Your task to perform on an android device: Add "macbook air" to the cart on ebay, then select checkout. Image 0: 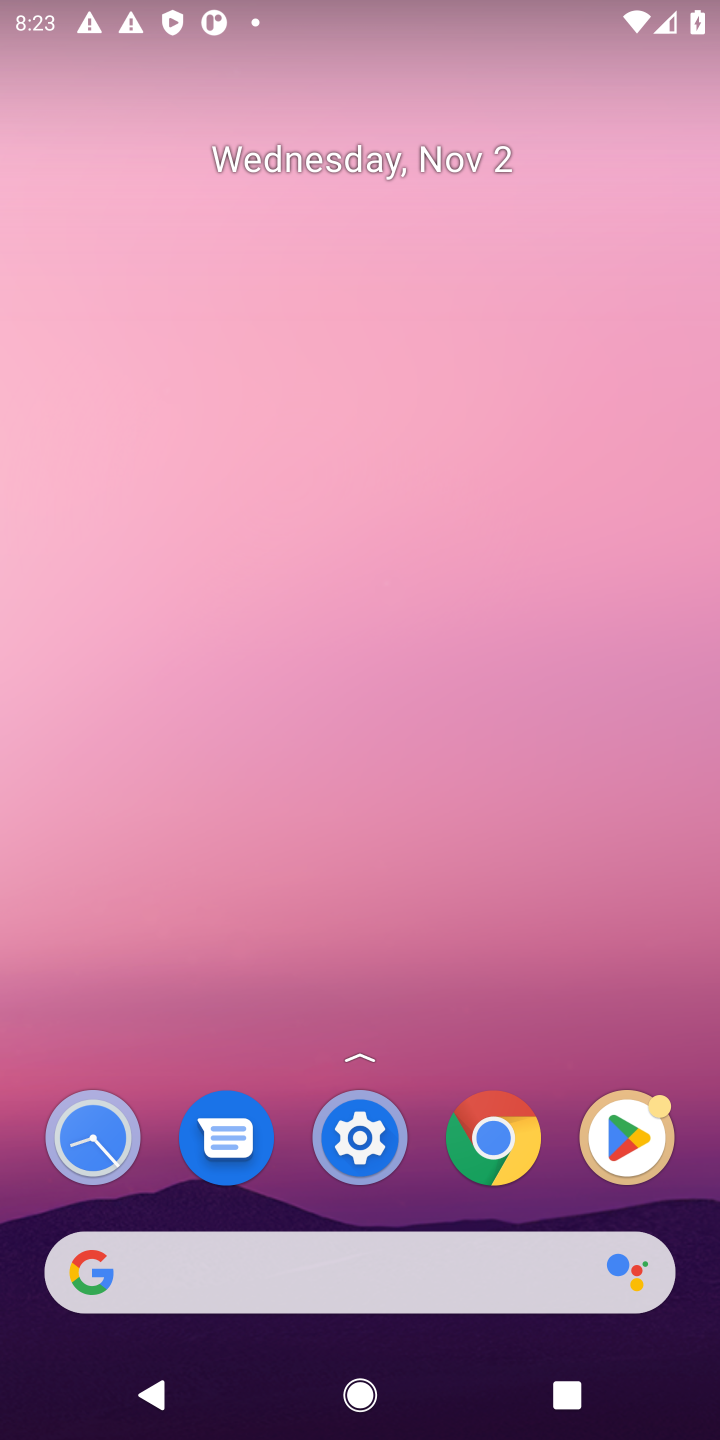
Step 0: click (227, 1266)
Your task to perform on an android device: Add "macbook air" to the cart on ebay, then select checkout. Image 1: 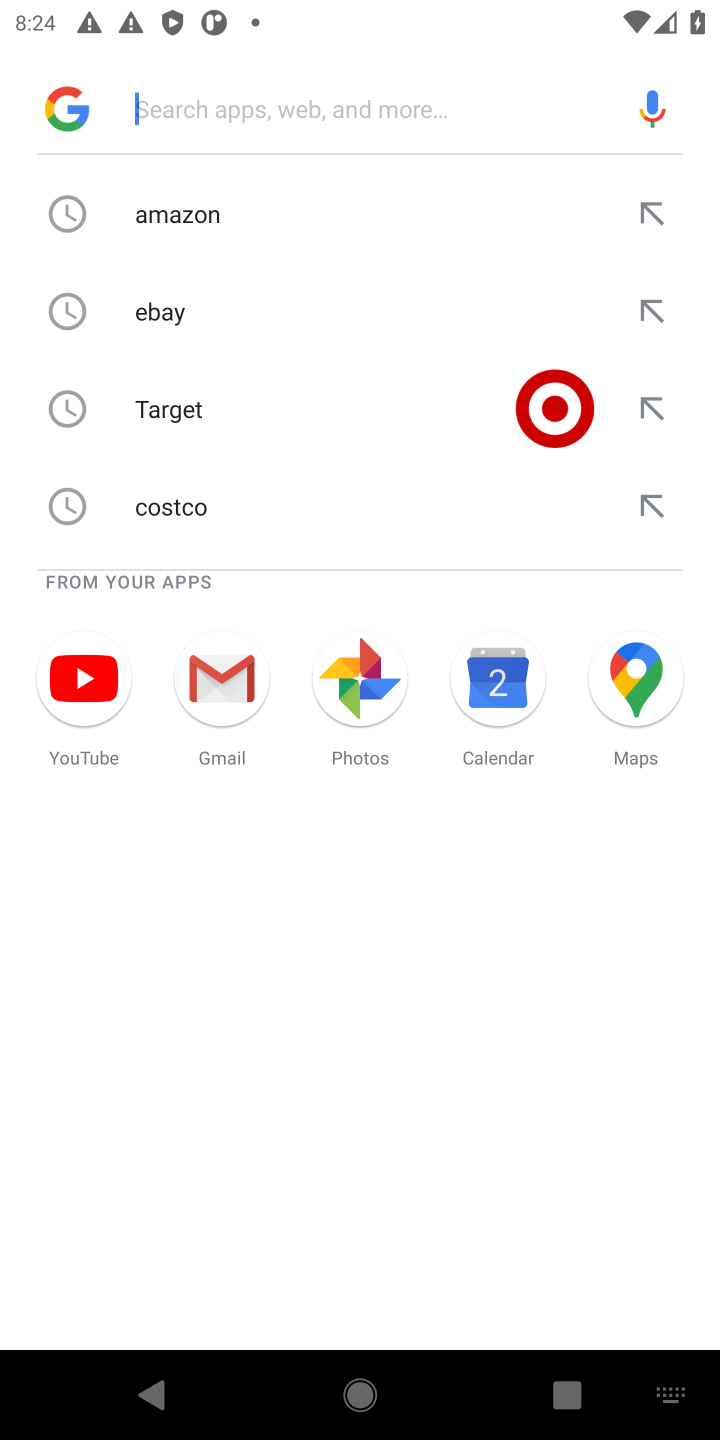
Step 1: click (141, 312)
Your task to perform on an android device: Add "macbook air" to the cart on ebay, then select checkout. Image 2: 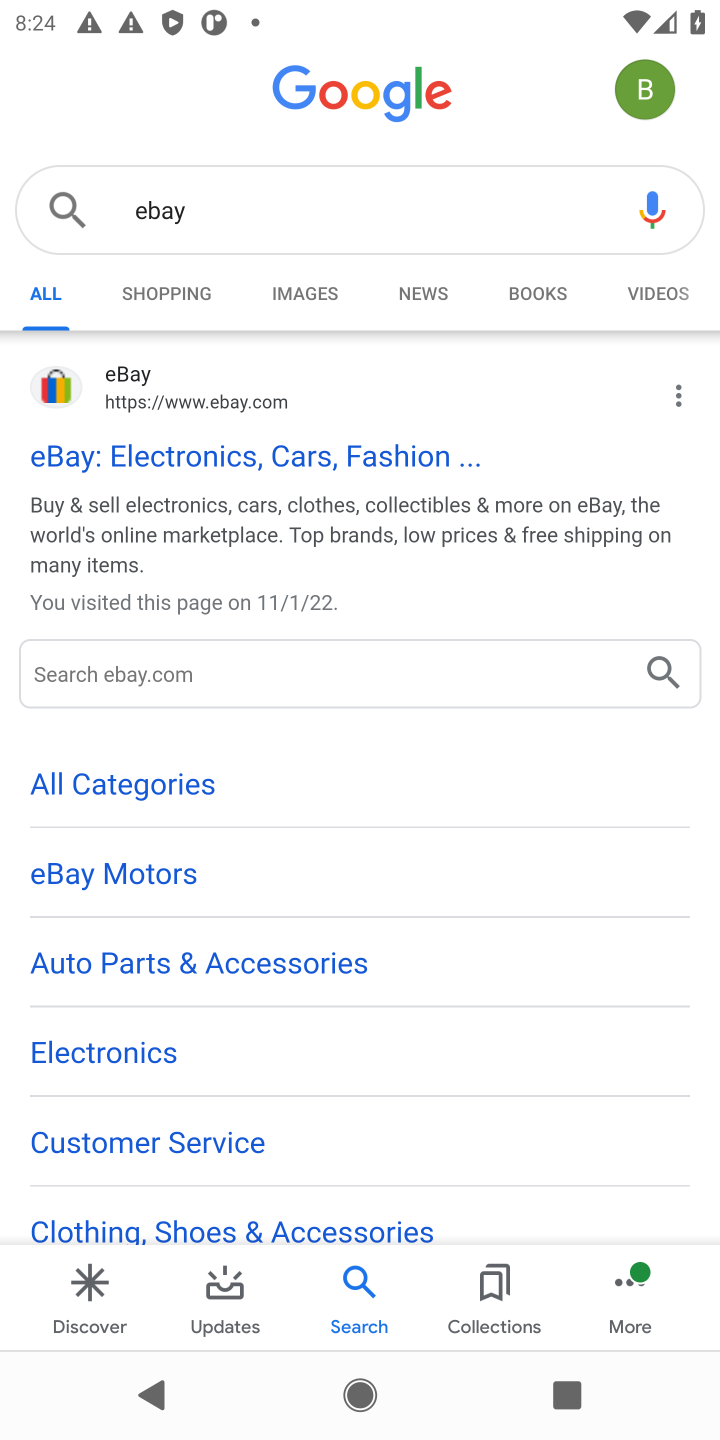
Step 2: click (125, 444)
Your task to perform on an android device: Add "macbook air" to the cart on ebay, then select checkout. Image 3: 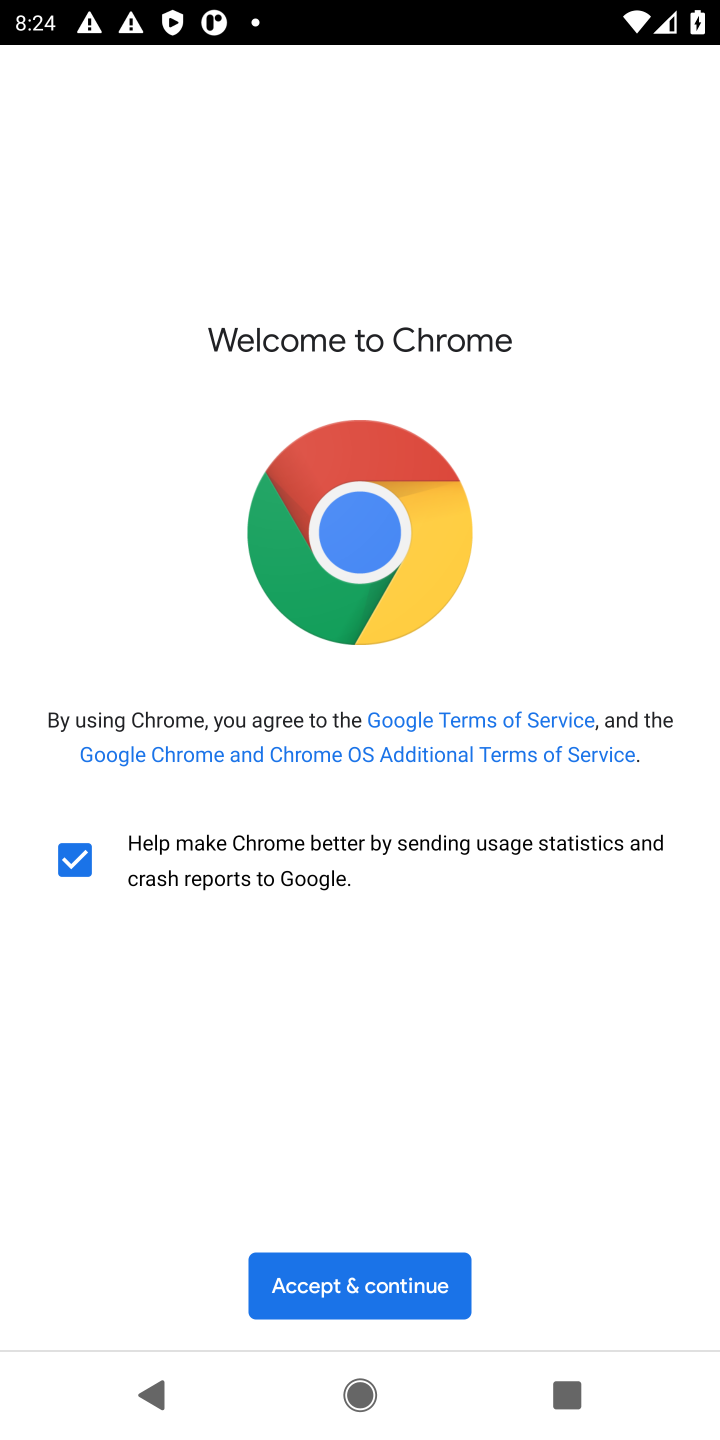
Step 3: click (334, 1279)
Your task to perform on an android device: Add "macbook air" to the cart on ebay, then select checkout. Image 4: 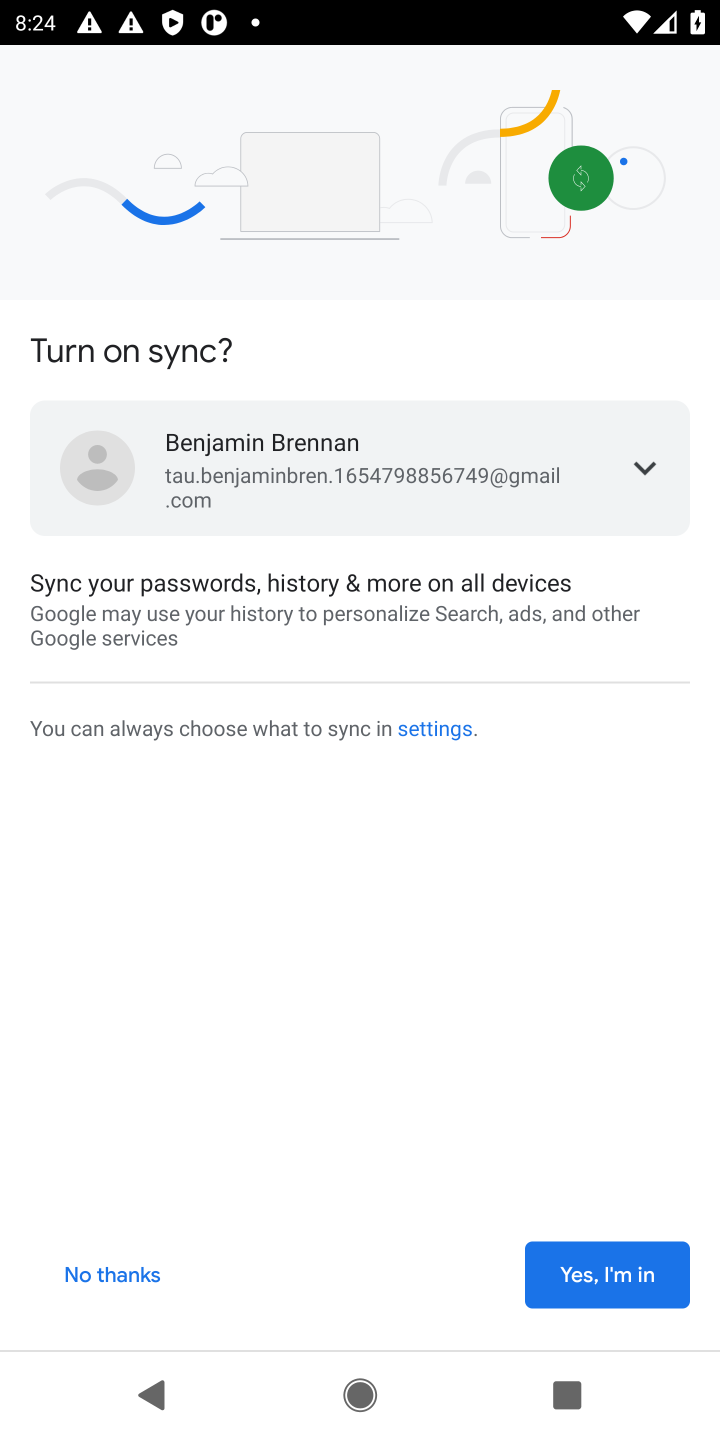
Step 4: click (552, 1274)
Your task to perform on an android device: Add "macbook air" to the cart on ebay, then select checkout. Image 5: 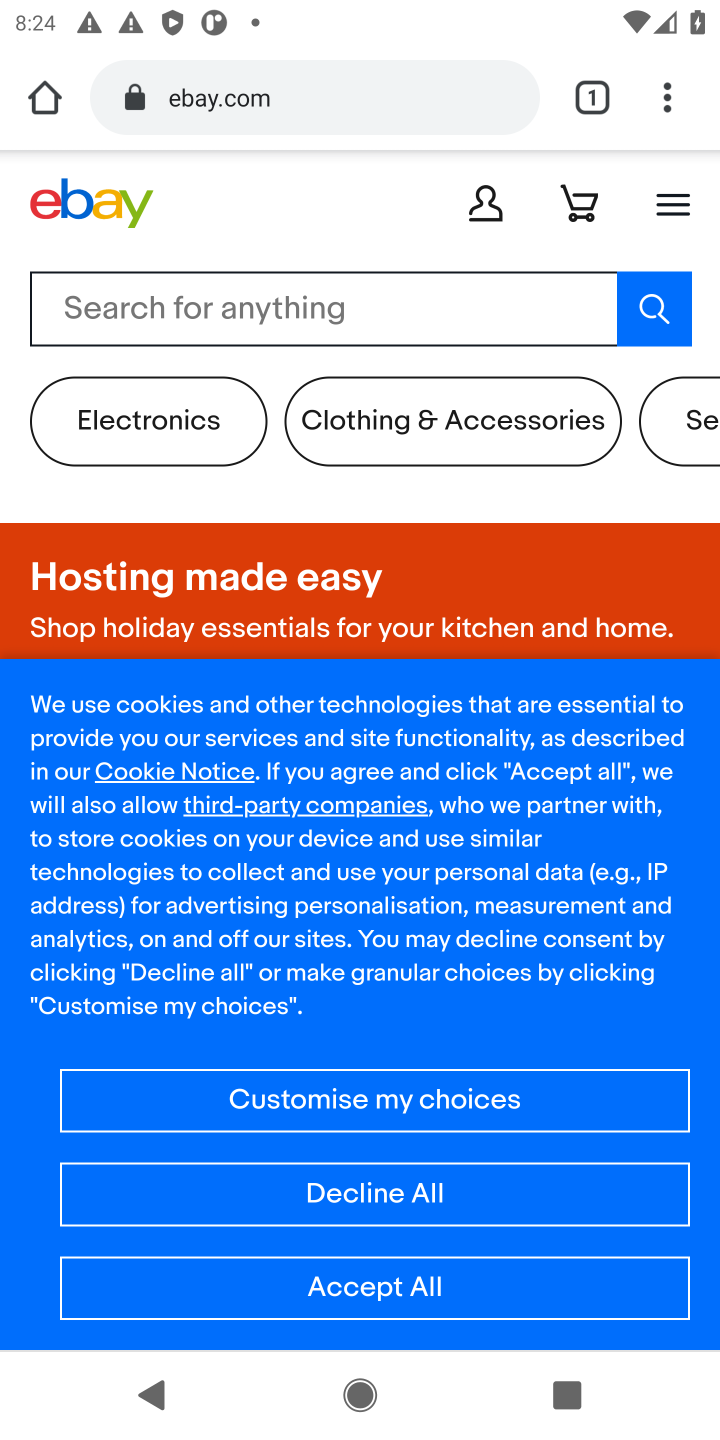
Step 5: click (406, 1302)
Your task to perform on an android device: Add "macbook air" to the cart on ebay, then select checkout. Image 6: 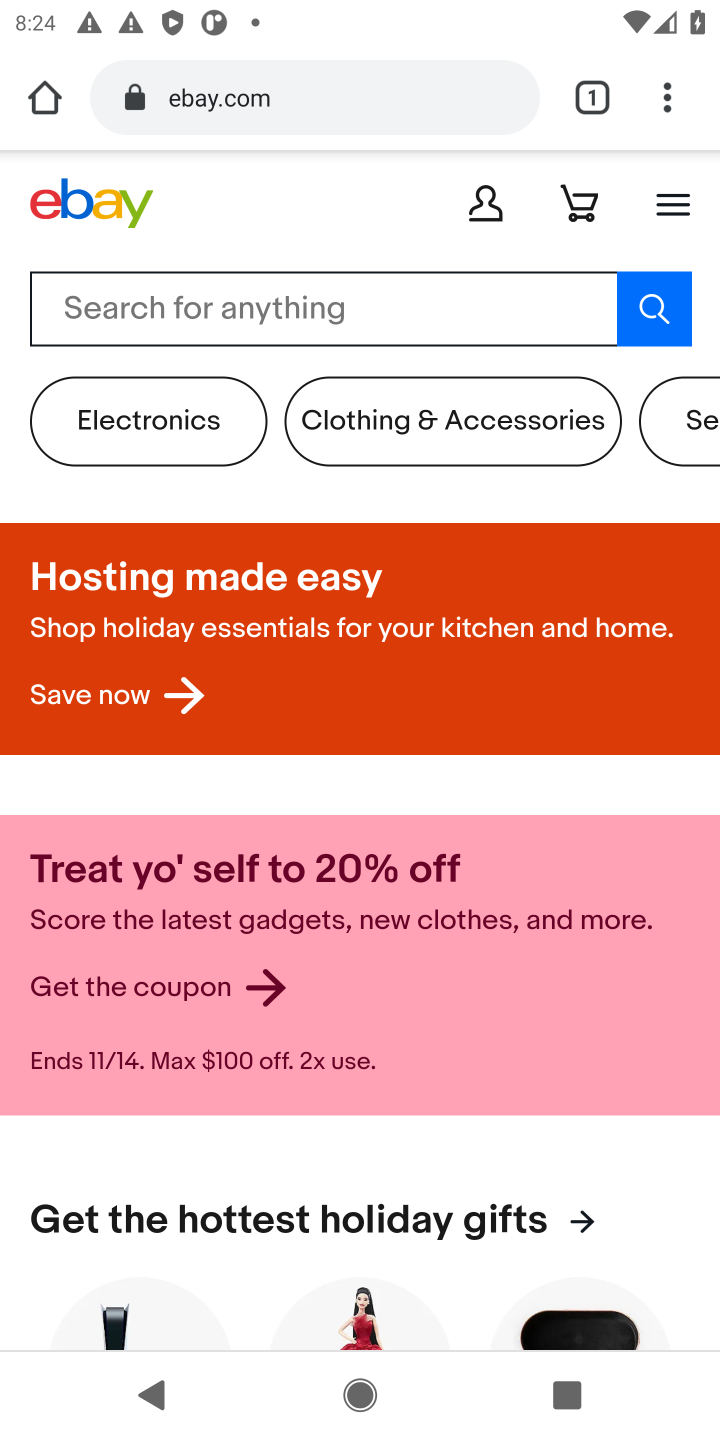
Step 6: click (214, 301)
Your task to perform on an android device: Add "macbook air" to the cart on ebay, then select checkout. Image 7: 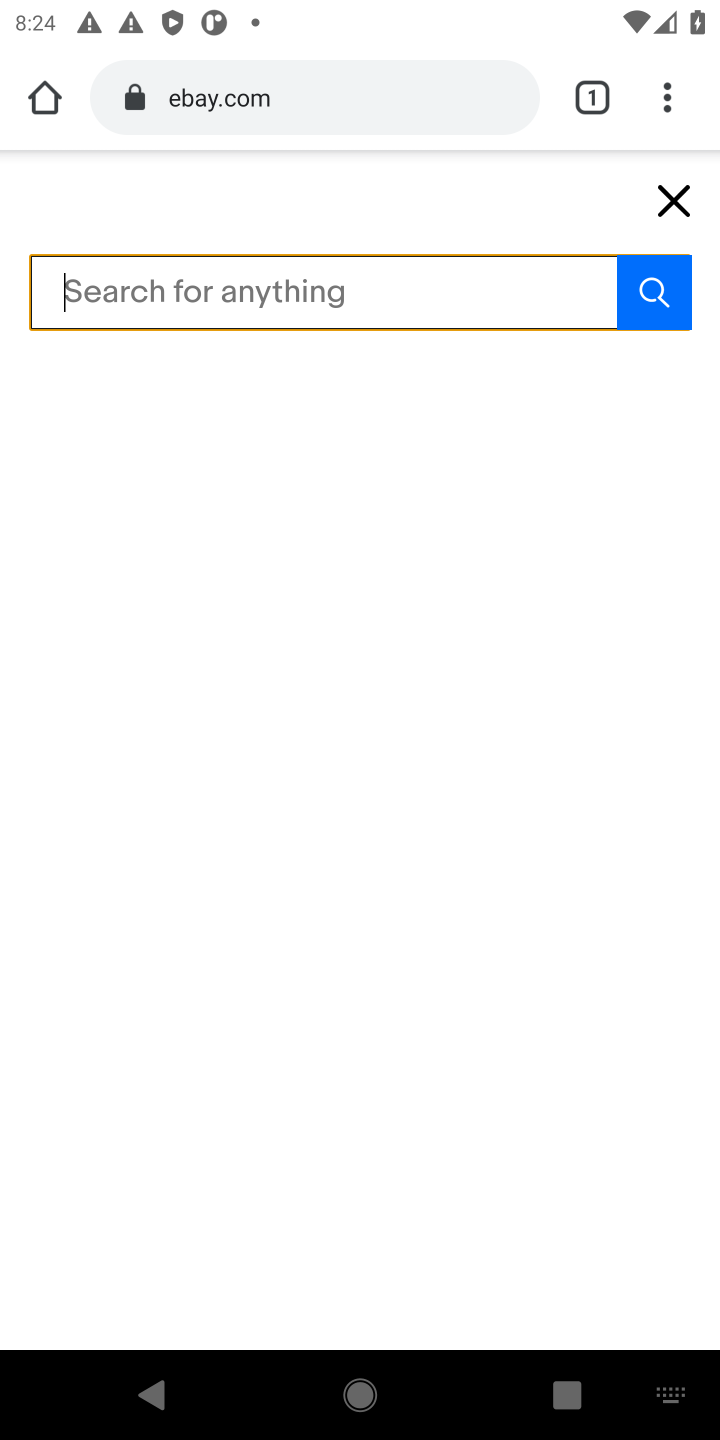
Step 7: type "macbook air"
Your task to perform on an android device: Add "macbook air" to the cart on ebay, then select checkout. Image 8: 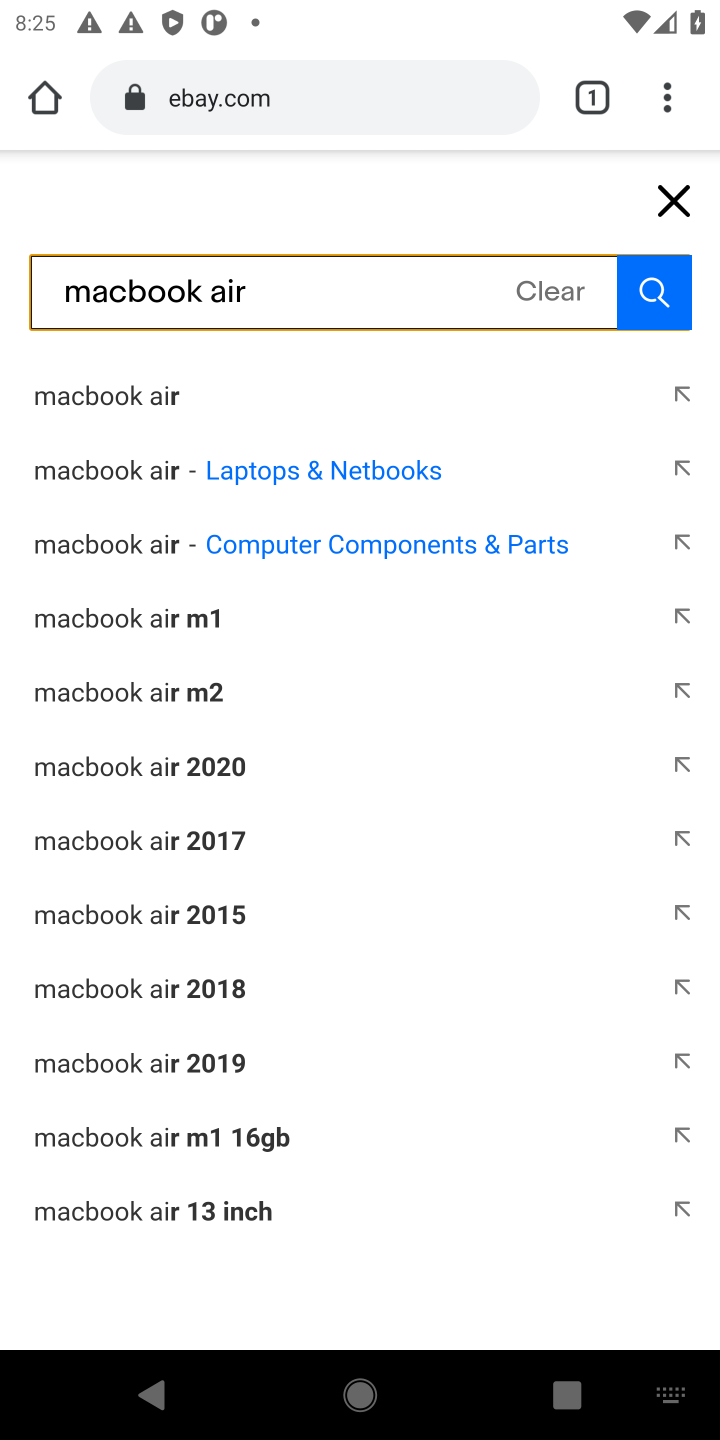
Step 8: click (172, 396)
Your task to perform on an android device: Add "macbook air" to the cart on ebay, then select checkout. Image 9: 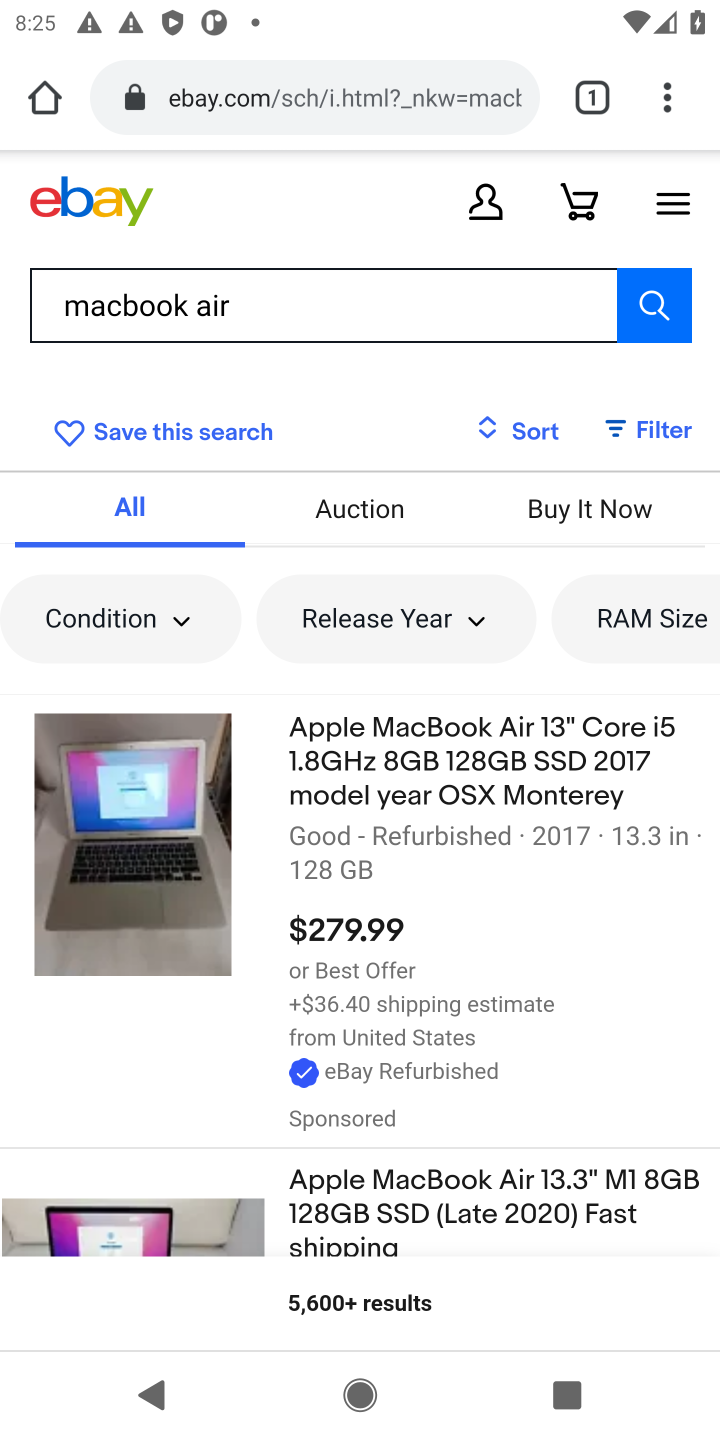
Step 9: click (450, 769)
Your task to perform on an android device: Add "macbook air" to the cart on ebay, then select checkout. Image 10: 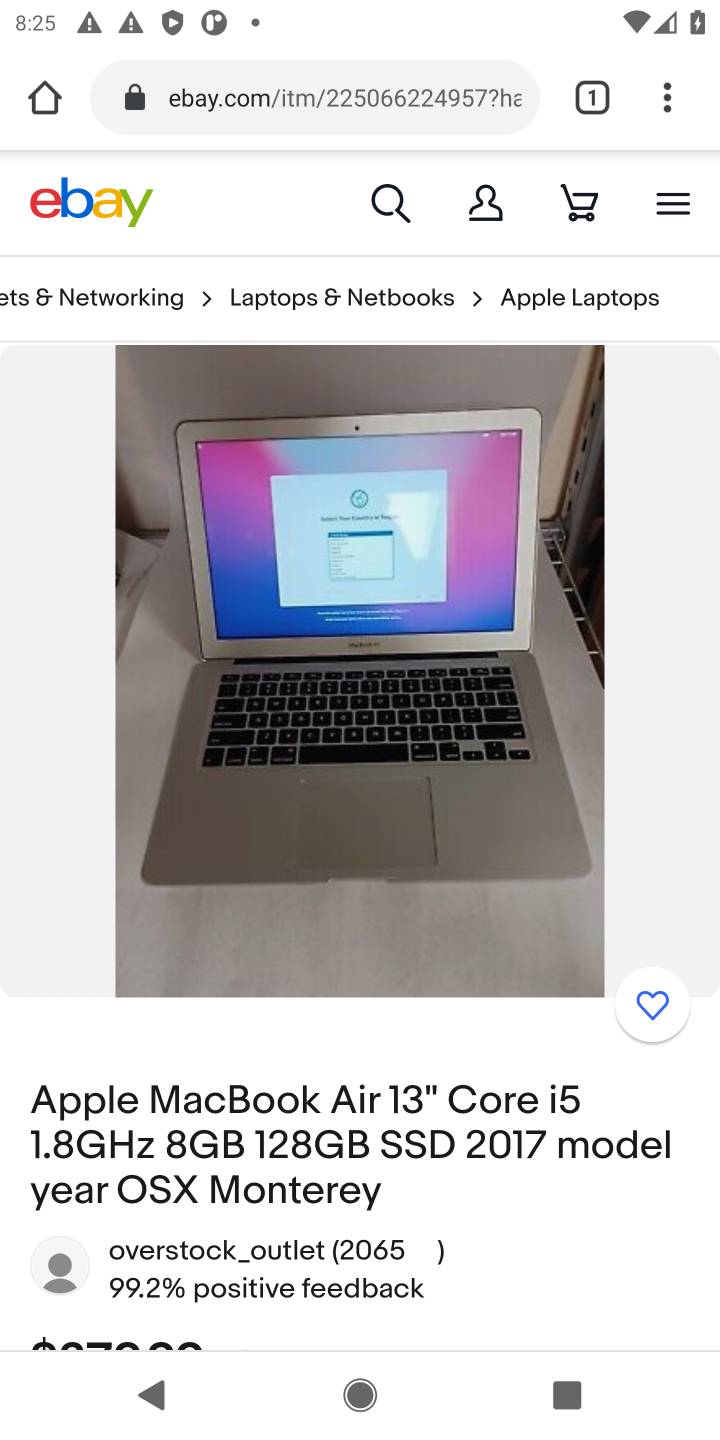
Step 10: drag from (648, 841) to (577, 500)
Your task to perform on an android device: Add "macbook air" to the cart on ebay, then select checkout. Image 11: 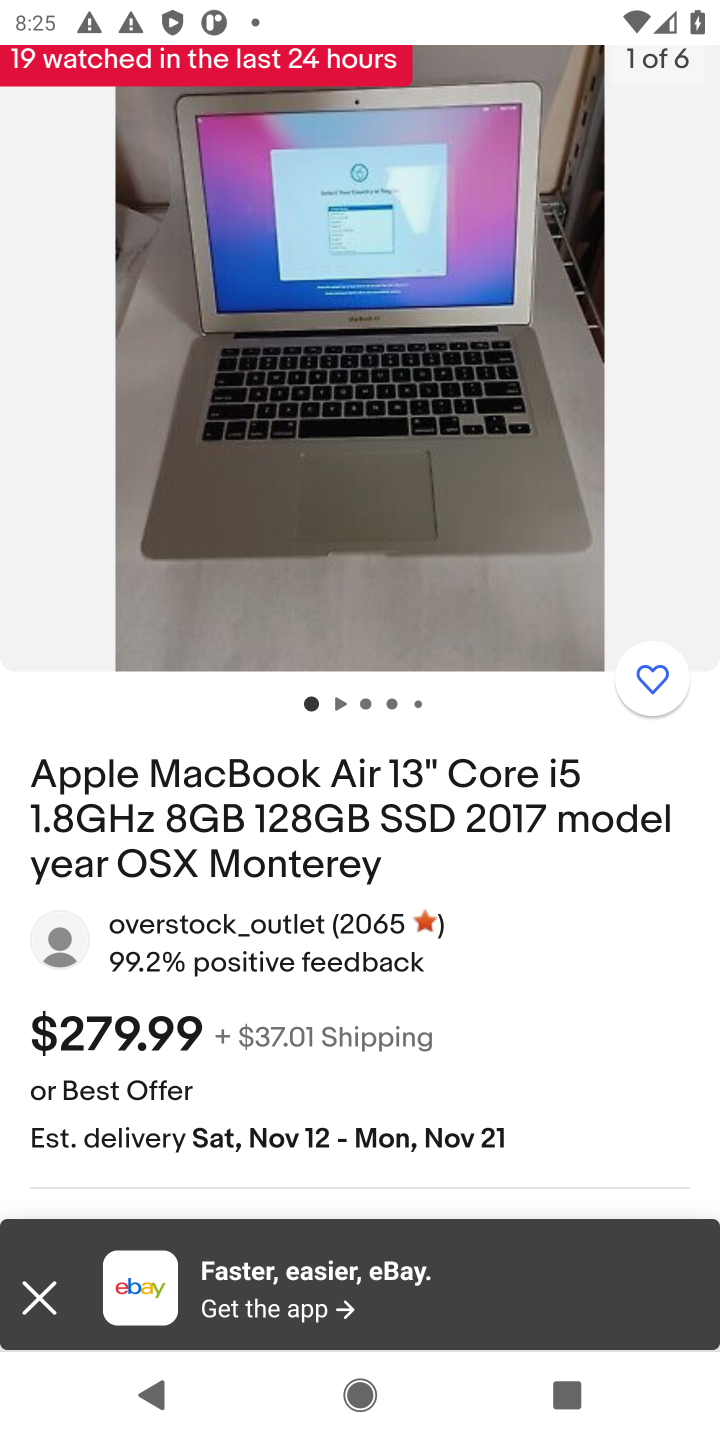
Step 11: drag from (496, 1170) to (412, 672)
Your task to perform on an android device: Add "macbook air" to the cart on ebay, then select checkout. Image 12: 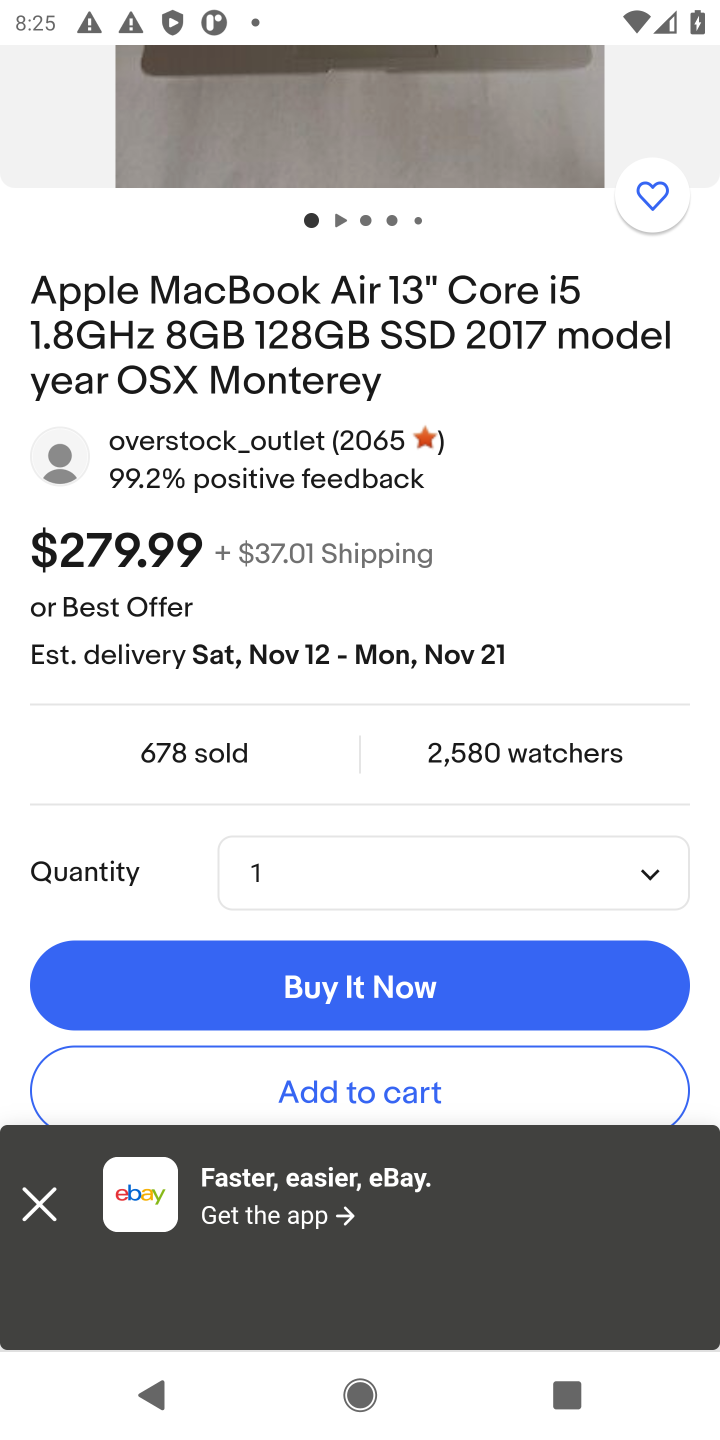
Step 12: click (421, 1081)
Your task to perform on an android device: Add "macbook air" to the cart on ebay, then select checkout. Image 13: 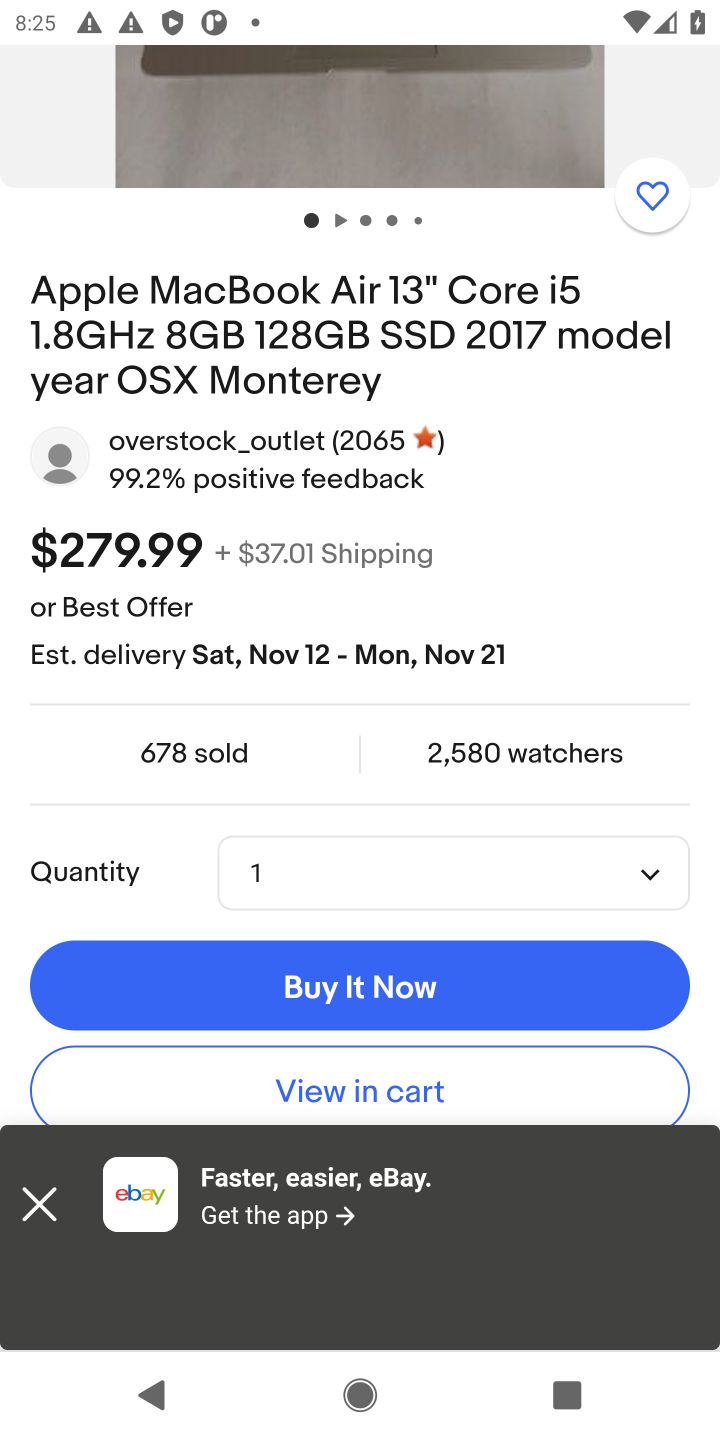
Step 13: click (385, 1085)
Your task to perform on an android device: Add "macbook air" to the cart on ebay, then select checkout. Image 14: 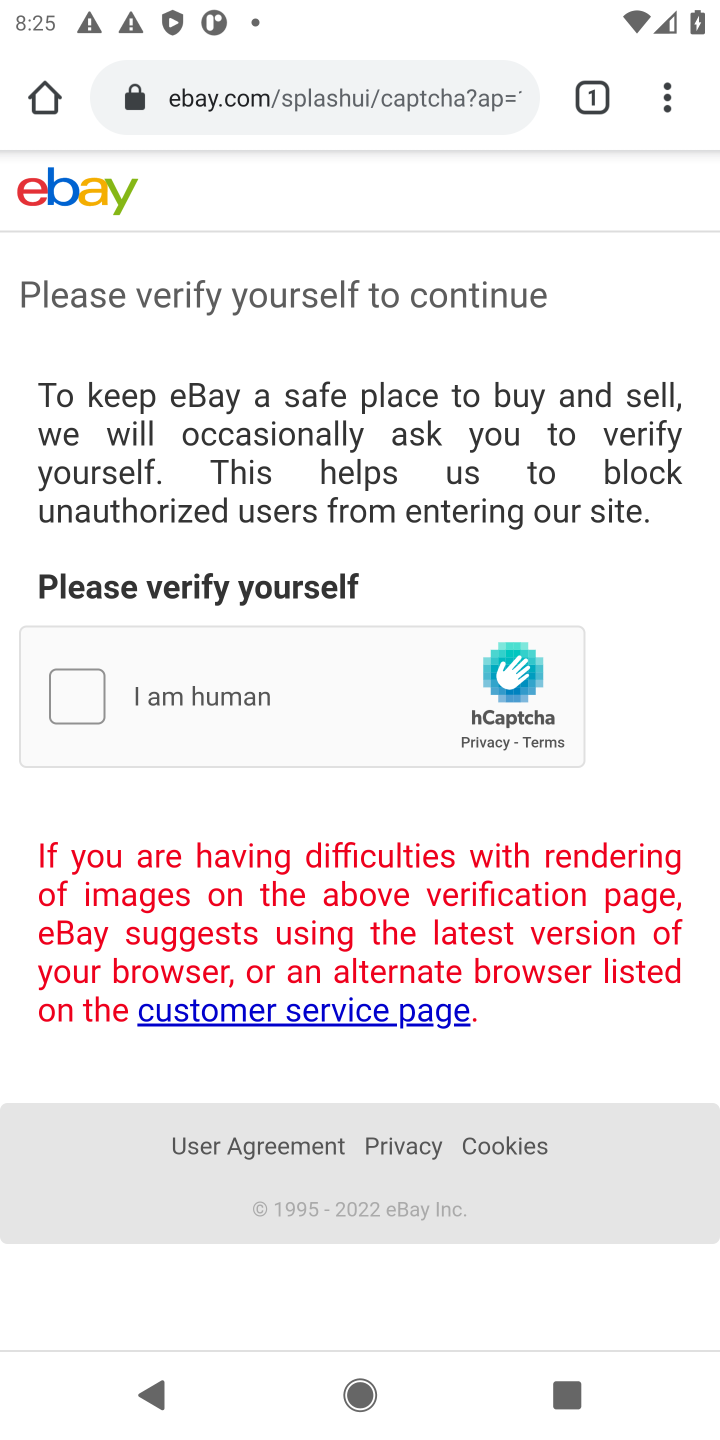
Step 14: click (79, 697)
Your task to perform on an android device: Add "macbook air" to the cart on ebay, then select checkout. Image 15: 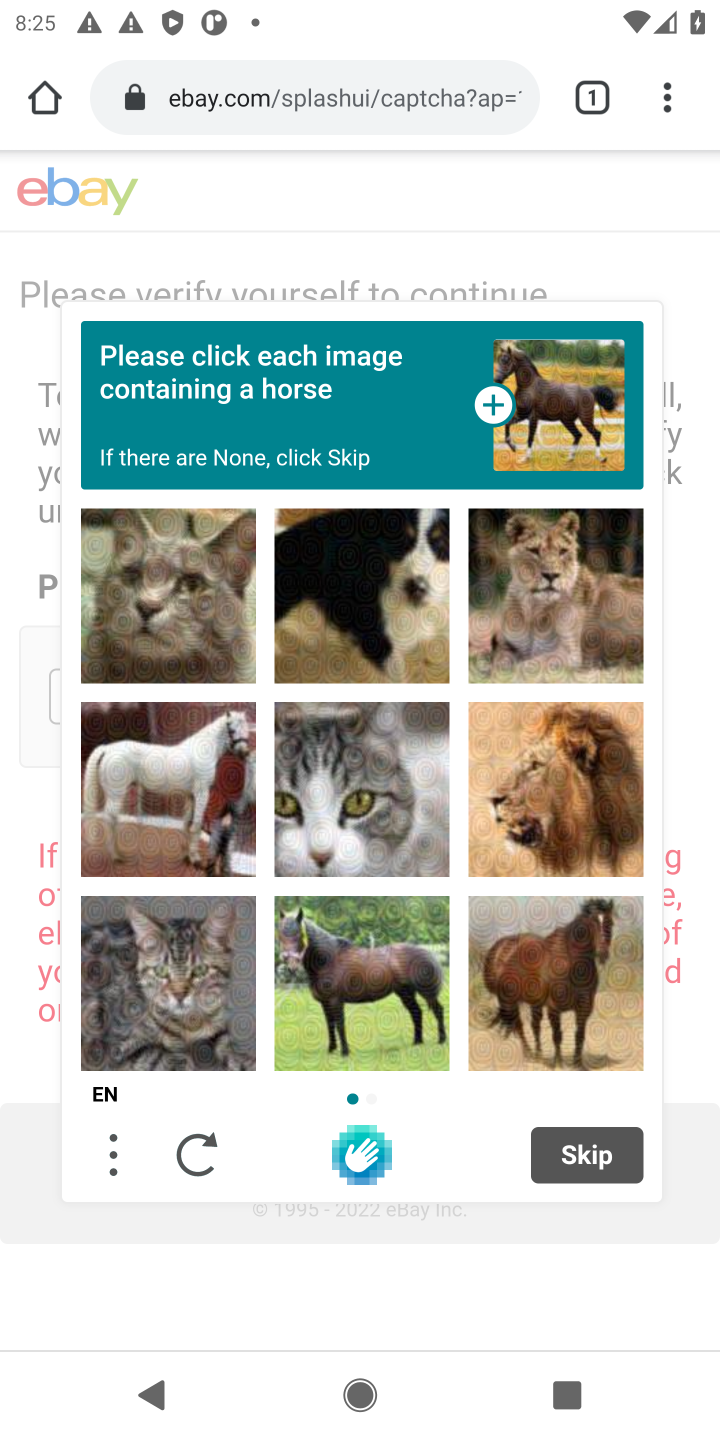
Step 15: click (606, 969)
Your task to perform on an android device: Add "macbook air" to the cart on ebay, then select checkout. Image 16: 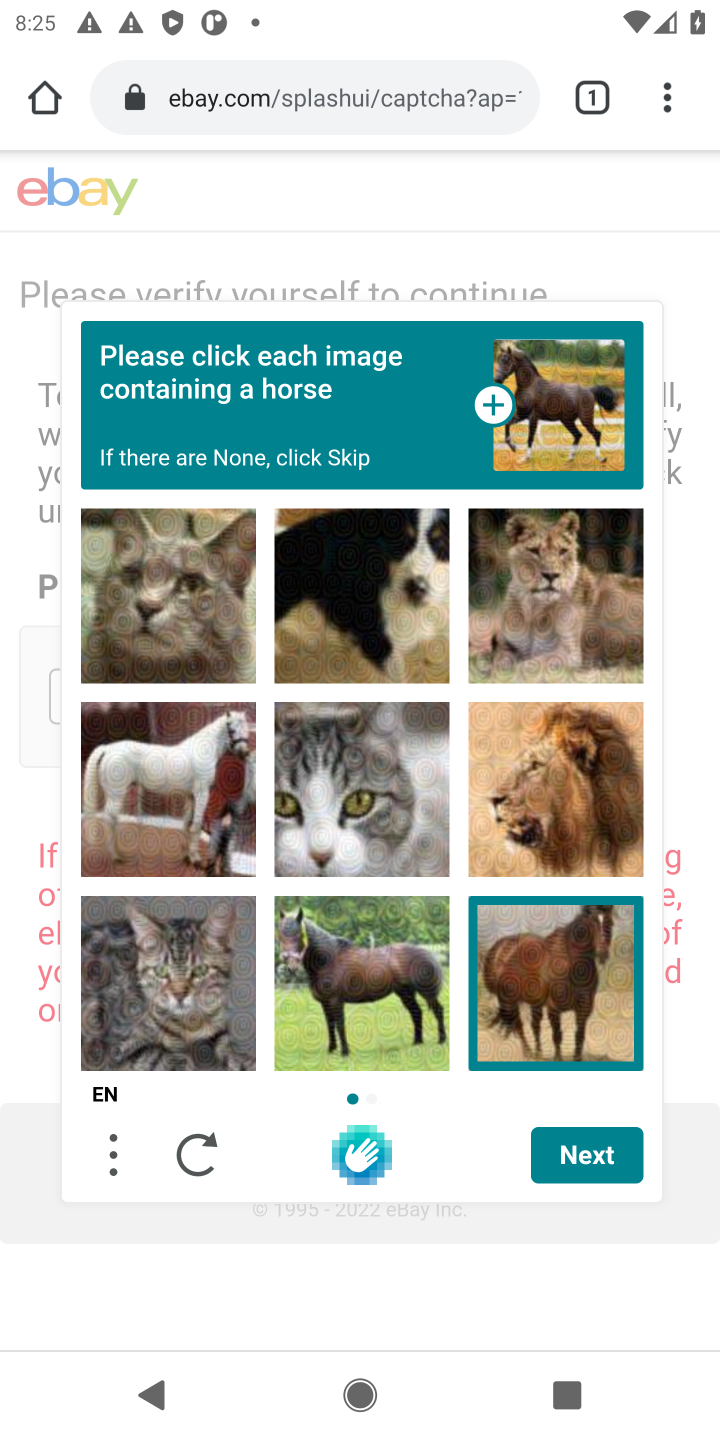
Step 16: click (181, 803)
Your task to perform on an android device: Add "macbook air" to the cart on ebay, then select checkout. Image 17: 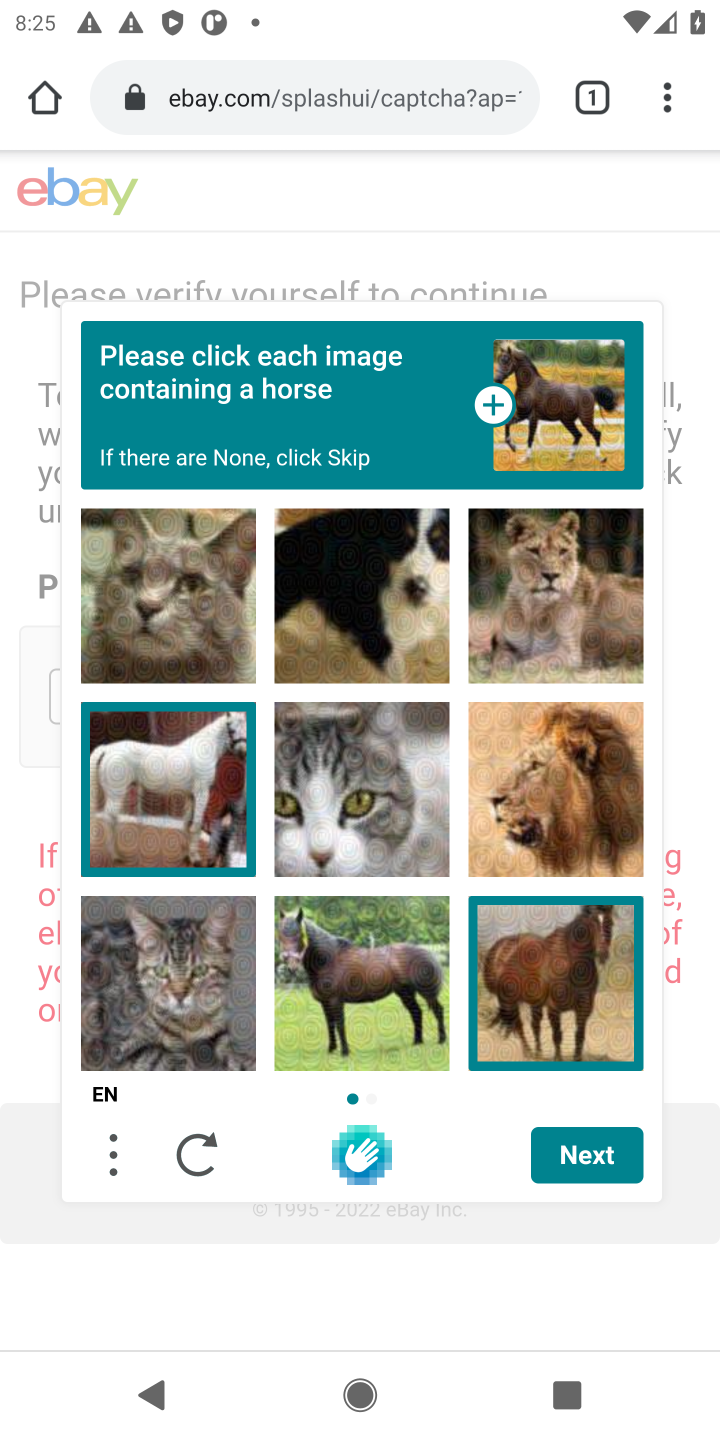
Step 17: click (357, 1021)
Your task to perform on an android device: Add "macbook air" to the cart on ebay, then select checkout. Image 18: 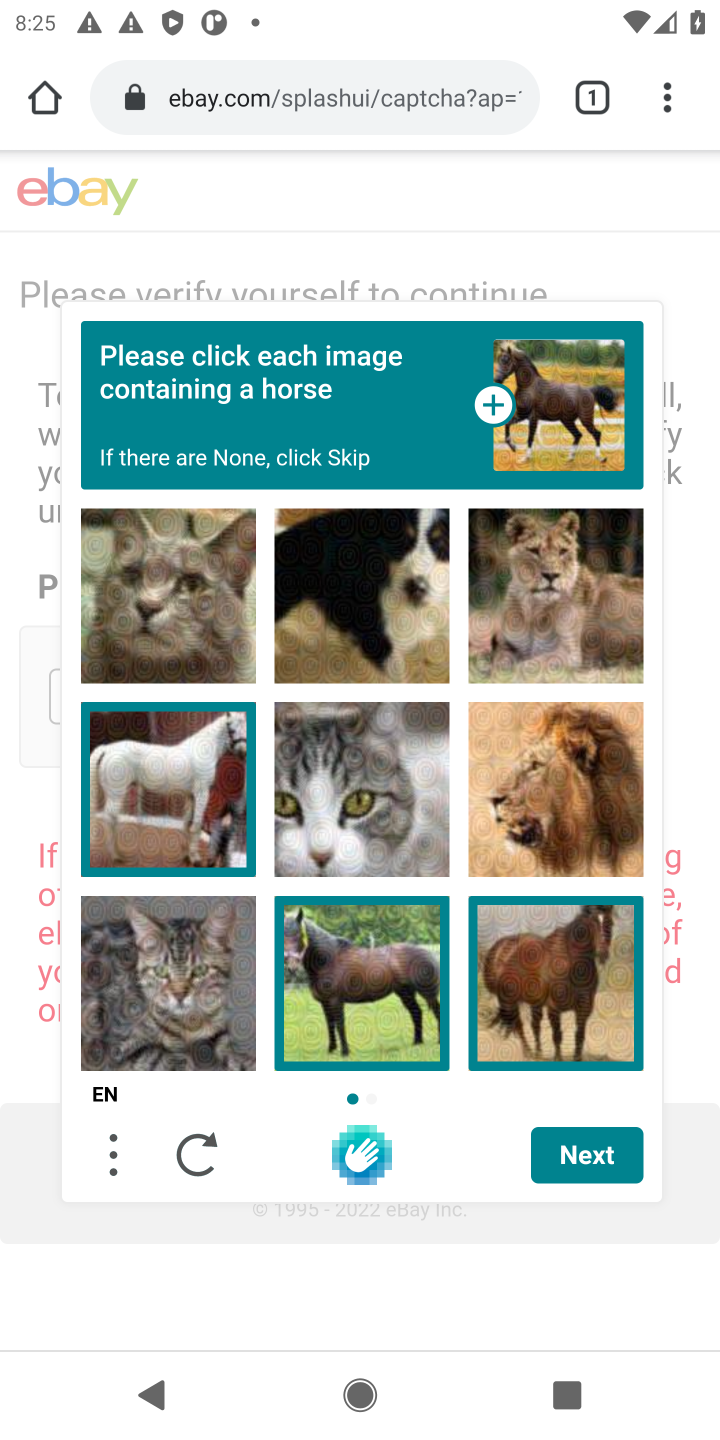
Step 18: click (564, 1170)
Your task to perform on an android device: Add "macbook air" to the cart on ebay, then select checkout. Image 19: 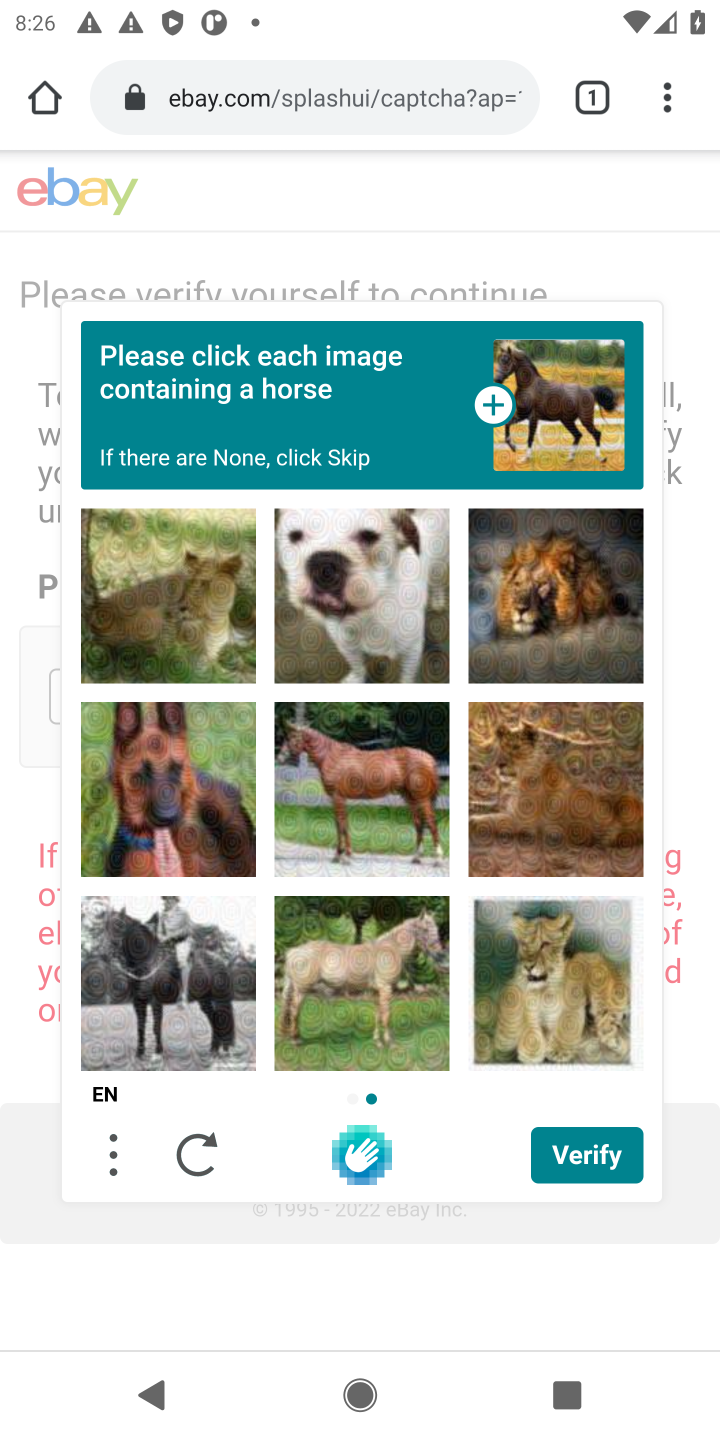
Step 19: click (154, 990)
Your task to perform on an android device: Add "macbook air" to the cart on ebay, then select checkout. Image 20: 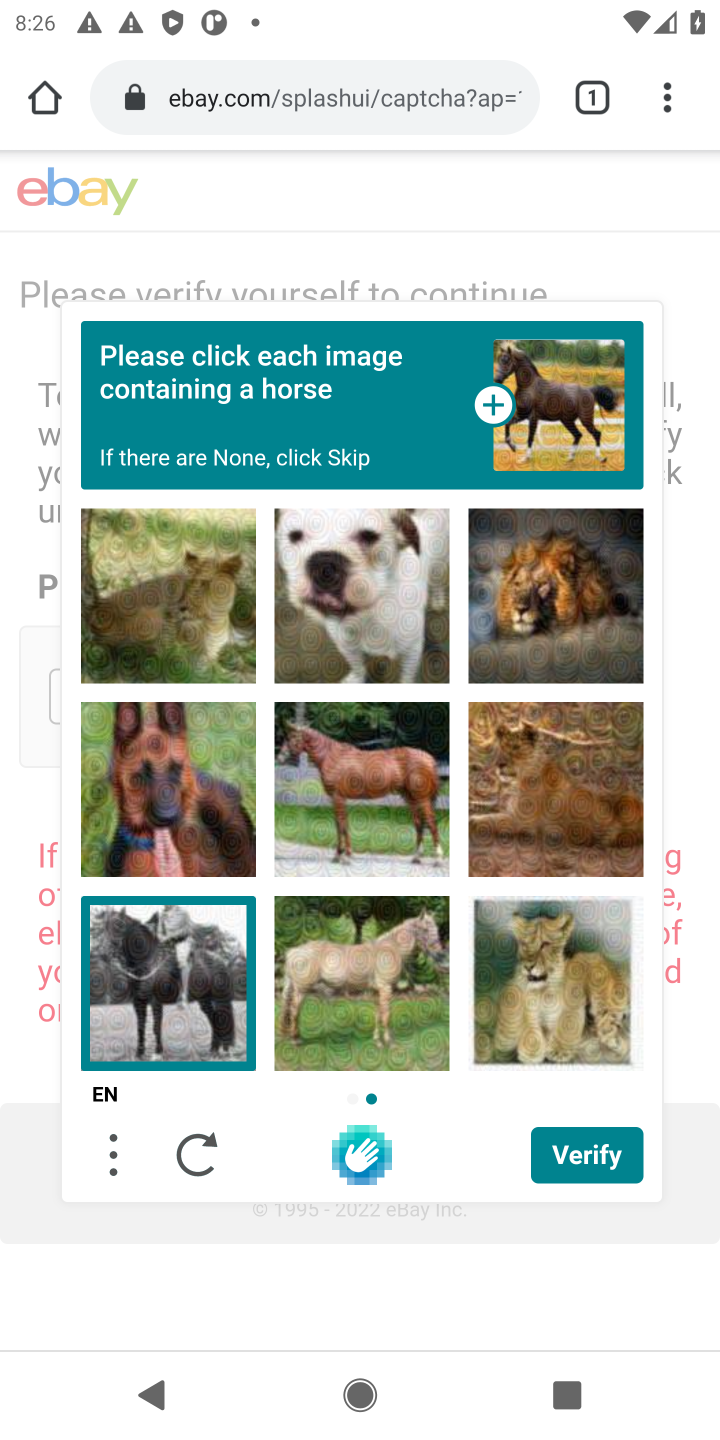
Step 20: click (584, 1155)
Your task to perform on an android device: Add "macbook air" to the cart on ebay, then select checkout. Image 21: 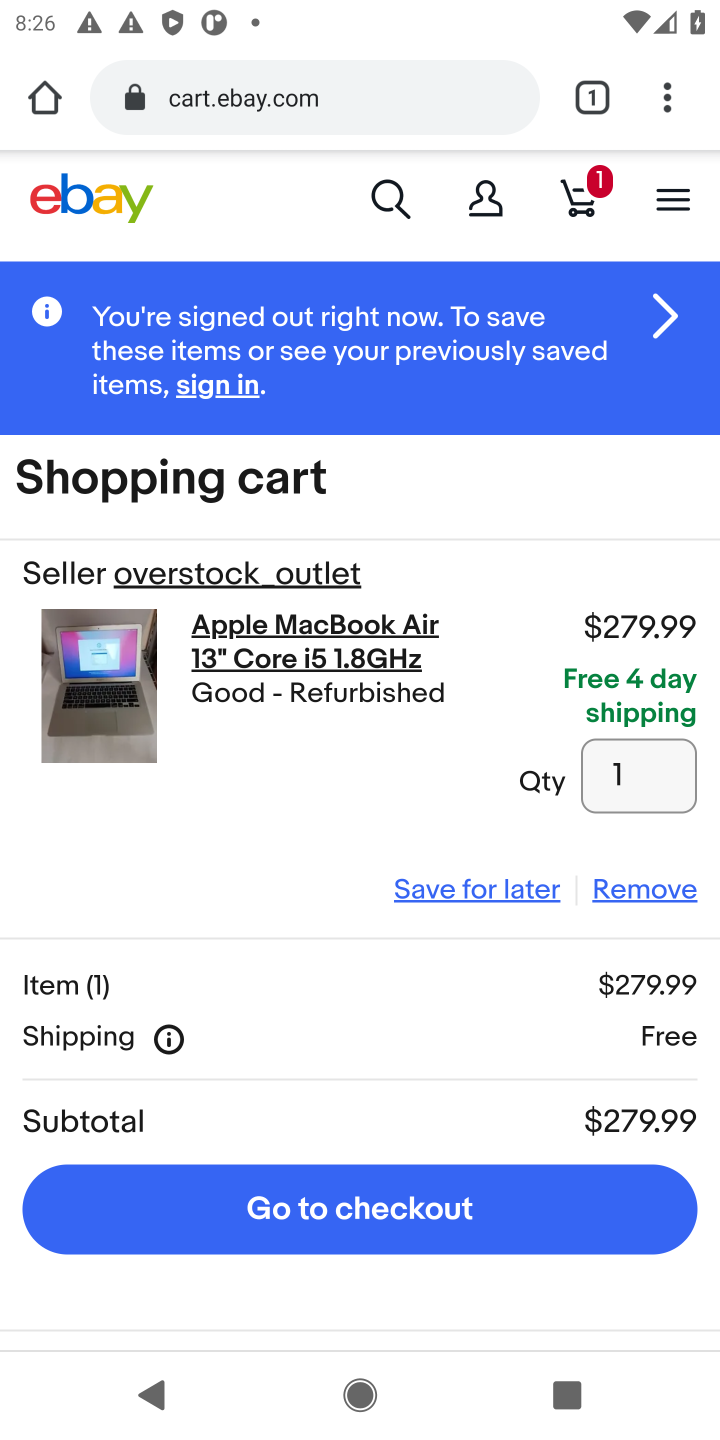
Step 21: click (364, 1194)
Your task to perform on an android device: Add "macbook air" to the cart on ebay, then select checkout. Image 22: 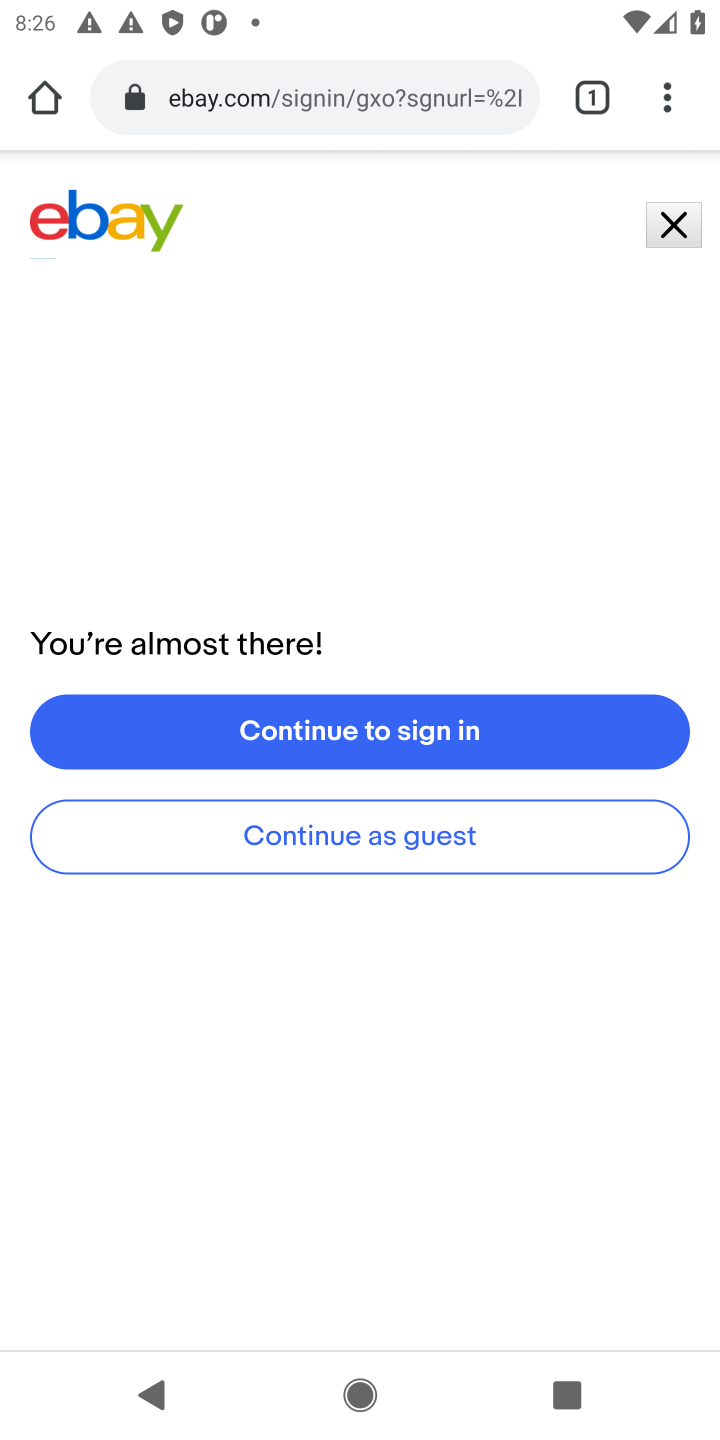
Step 22: task complete